Your task to perform on an android device: Go to Android settings Image 0: 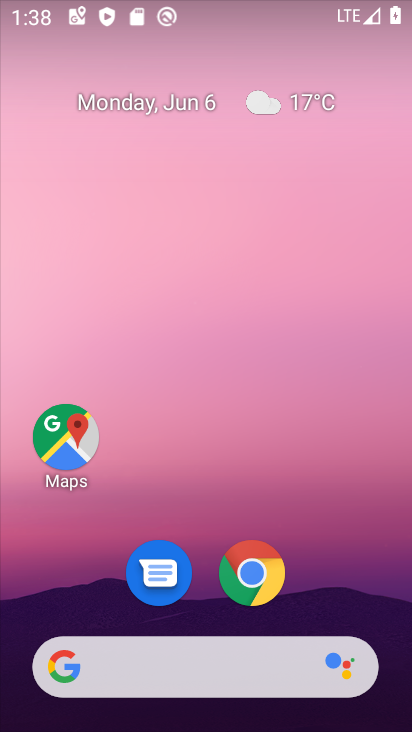
Step 0: drag from (343, 583) to (361, 111)
Your task to perform on an android device: Go to Android settings Image 1: 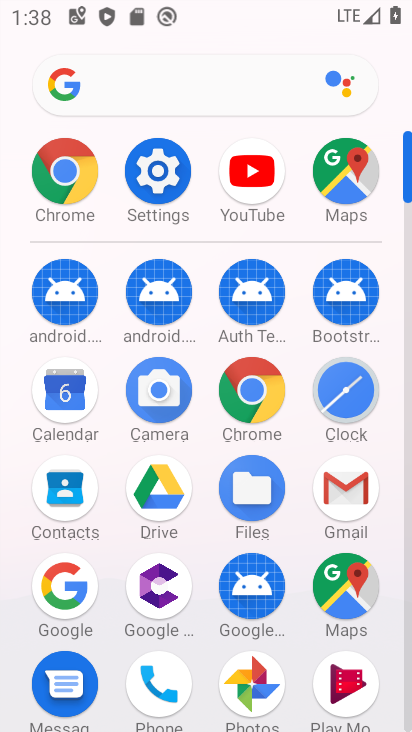
Step 1: click (165, 179)
Your task to perform on an android device: Go to Android settings Image 2: 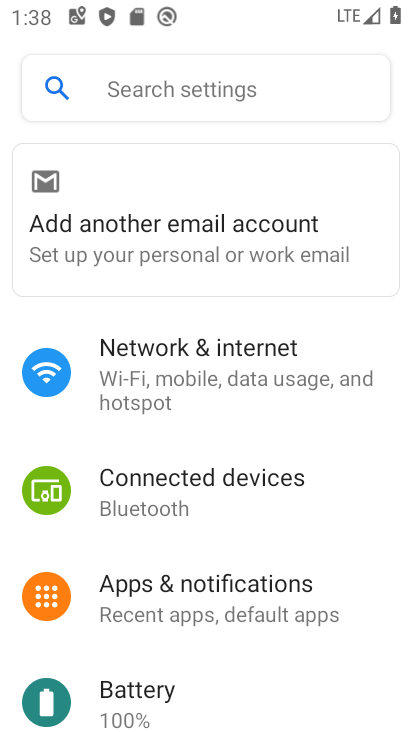
Step 2: drag from (348, 498) to (362, 329)
Your task to perform on an android device: Go to Android settings Image 3: 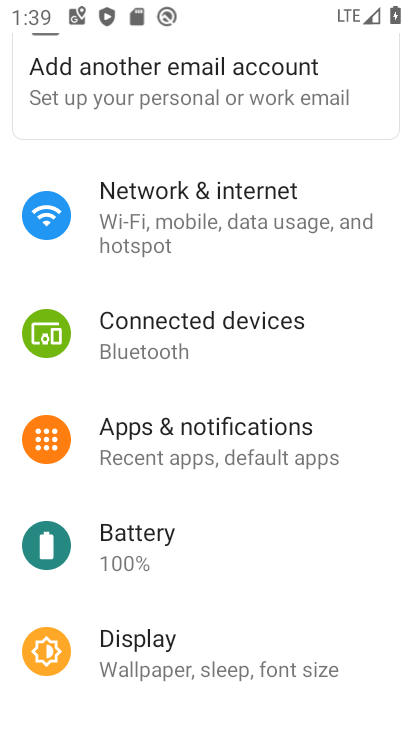
Step 3: drag from (343, 557) to (366, 386)
Your task to perform on an android device: Go to Android settings Image 4: 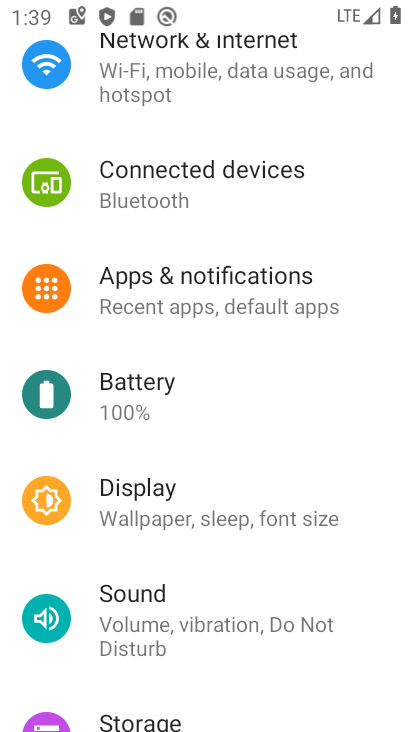
Step 4: drag from (351, 598) to (384, 326)
Your task to perform on an android device: Go to Android settings Image 5: 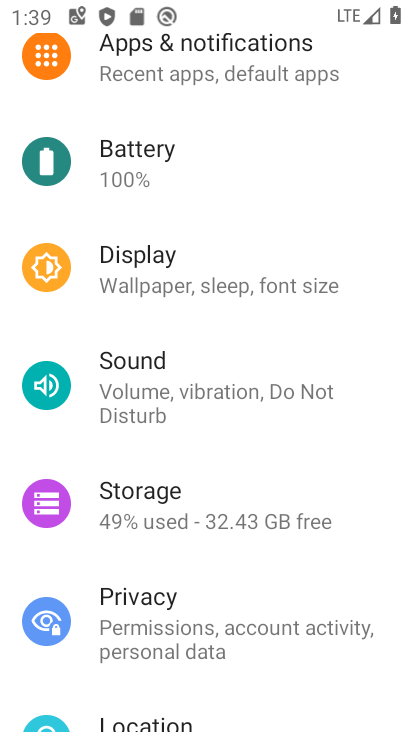
Step 5: drag from (352, 494) to (364, 340)
Your task to perform on an android device: Go to Android settings Image 6: 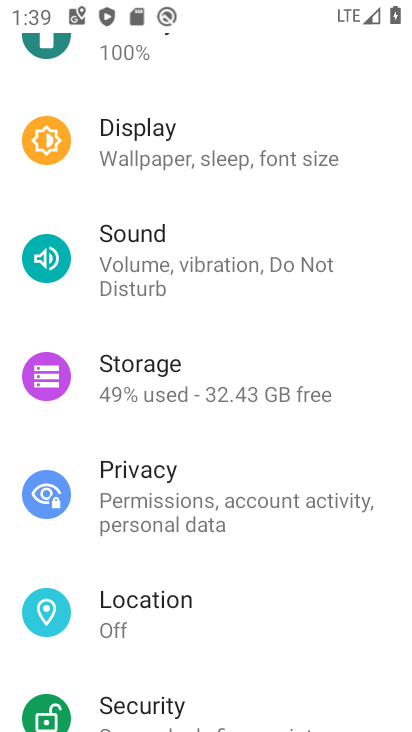
Step 6: drag from (316, 617) to (326, 393)
Your task to perform on an android device: Go to Android settings Image 7: 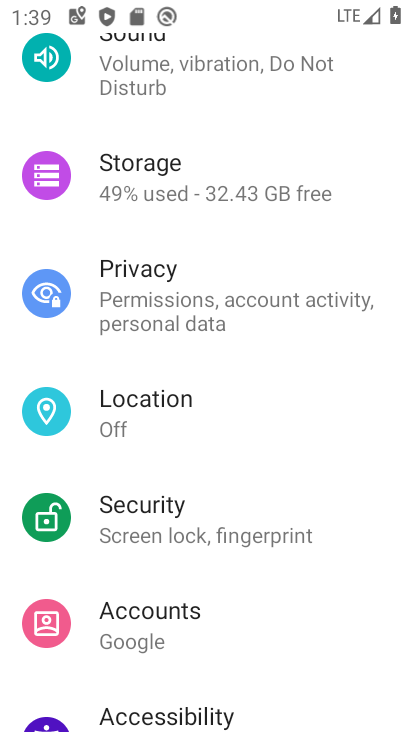
Step 7: drag from (316, 635) to (318, 451)
Your task to perform on an android device: Go to Android settings Image 8: 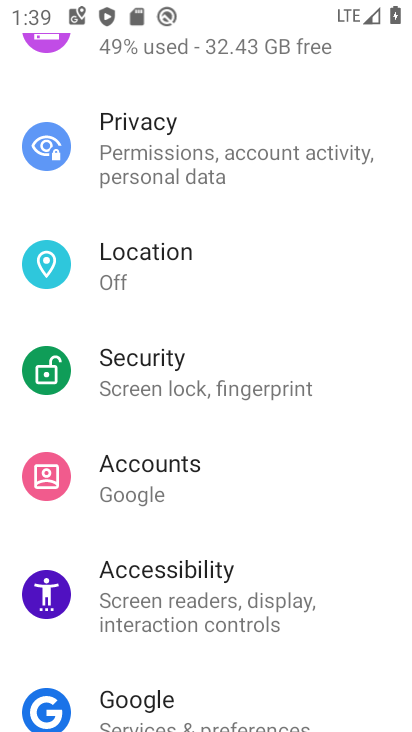
Step 8: drag from (335, 645) to (351, 431)
Your task to perform on an android device: Go to Android settings Image 9: 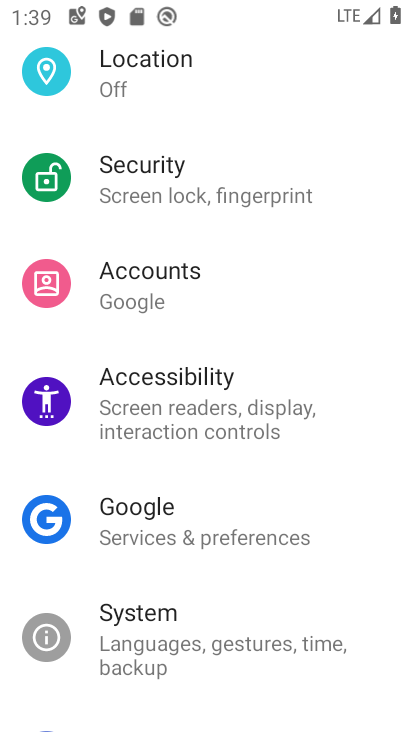
Step 9: click (215, 637)
Your task to perform on an android device: Go to Android settings Image 10: 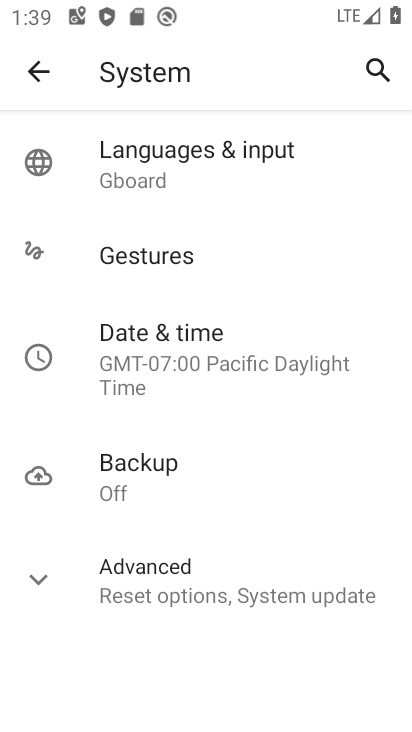
Step 10: click (223, 584)
Your task to perform on an android device: Go to Android settings Image 11: 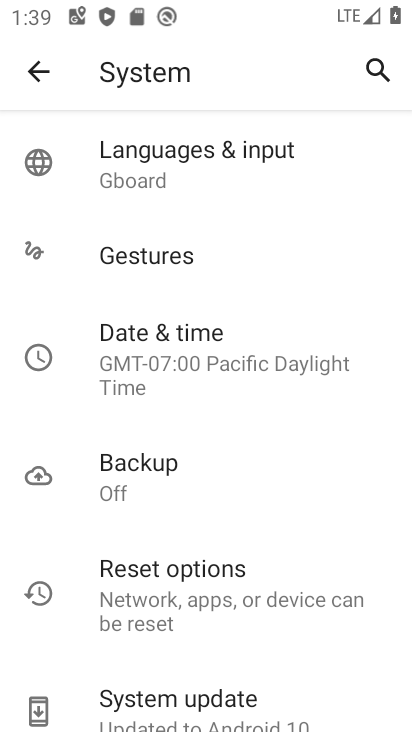
Step 11: task complete